Your task to perform on an android device: Search for 8K TVs on Best Buy. Image 0: 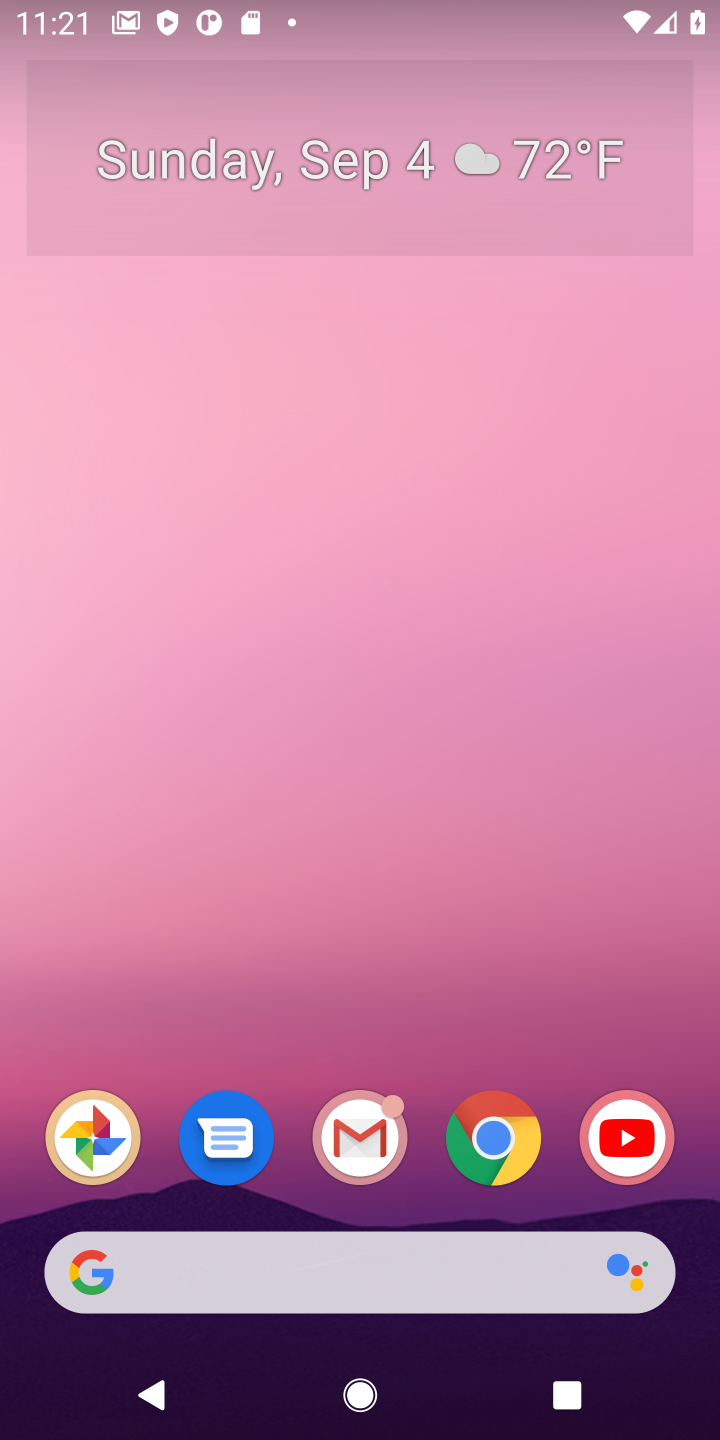
Step 0: click (486, 1147)
Your task to perform on an android device: Search for 8K TVs on Best Buy. Image 1: 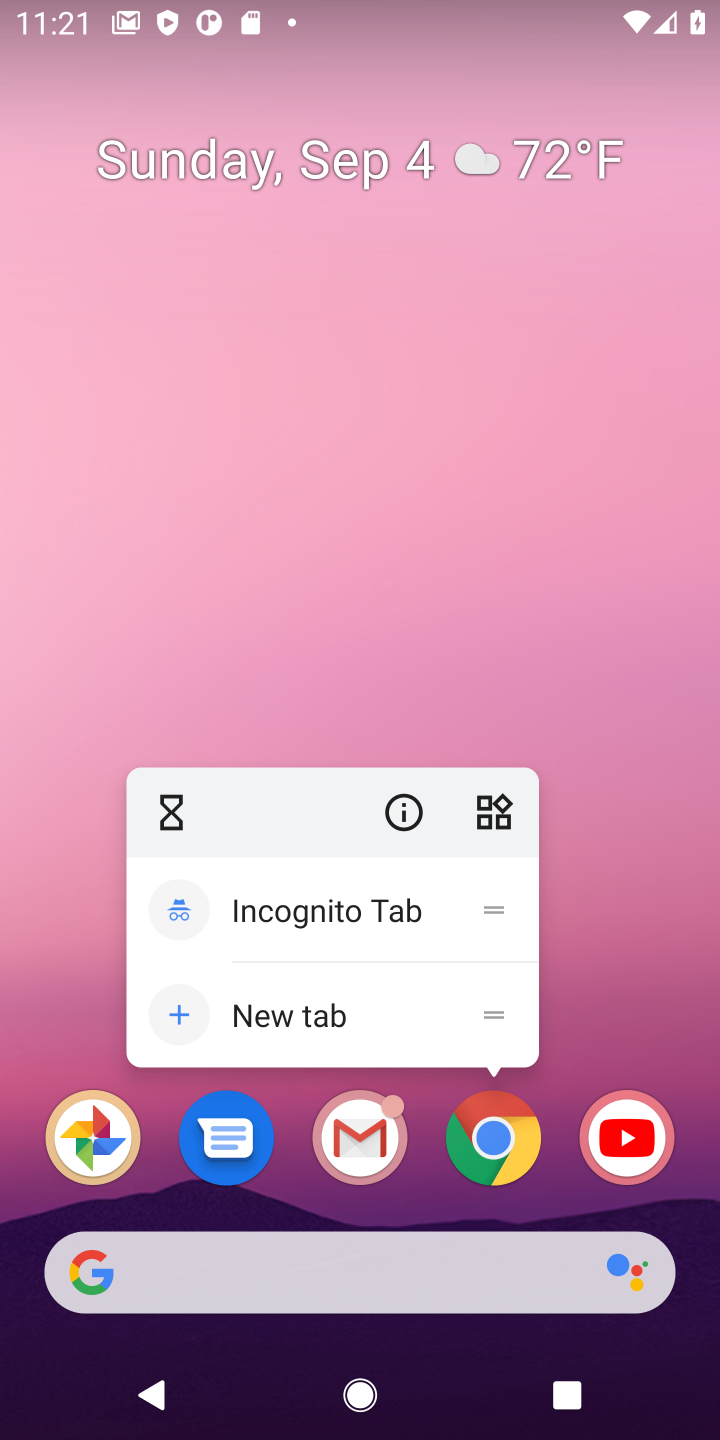
Step 1: click (497, 1132)
Your task to perform on an android device: Search for 8K TVs on Best Buy. Image 2: 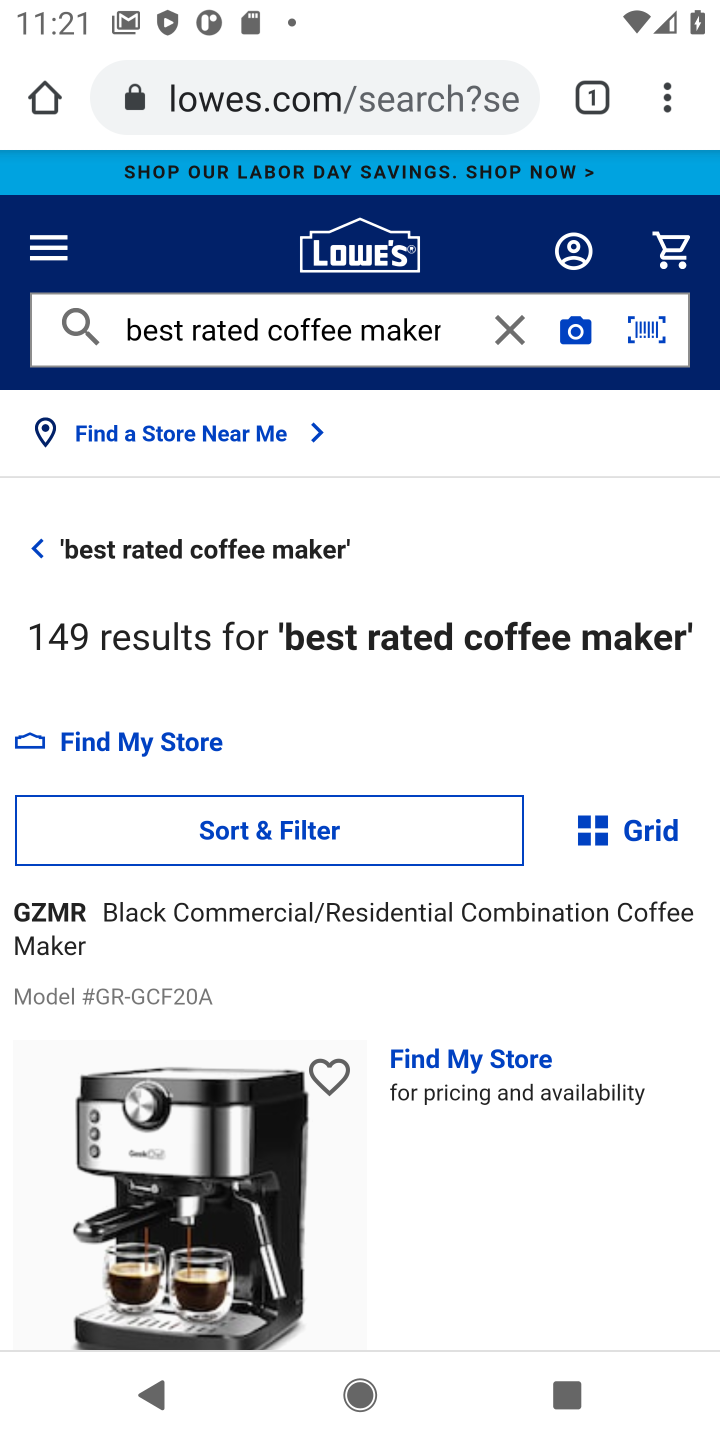
Step 2: click (493, 330)
Your task to perform on an android device: Search for 8K TVs on Best Buy. Image 3: 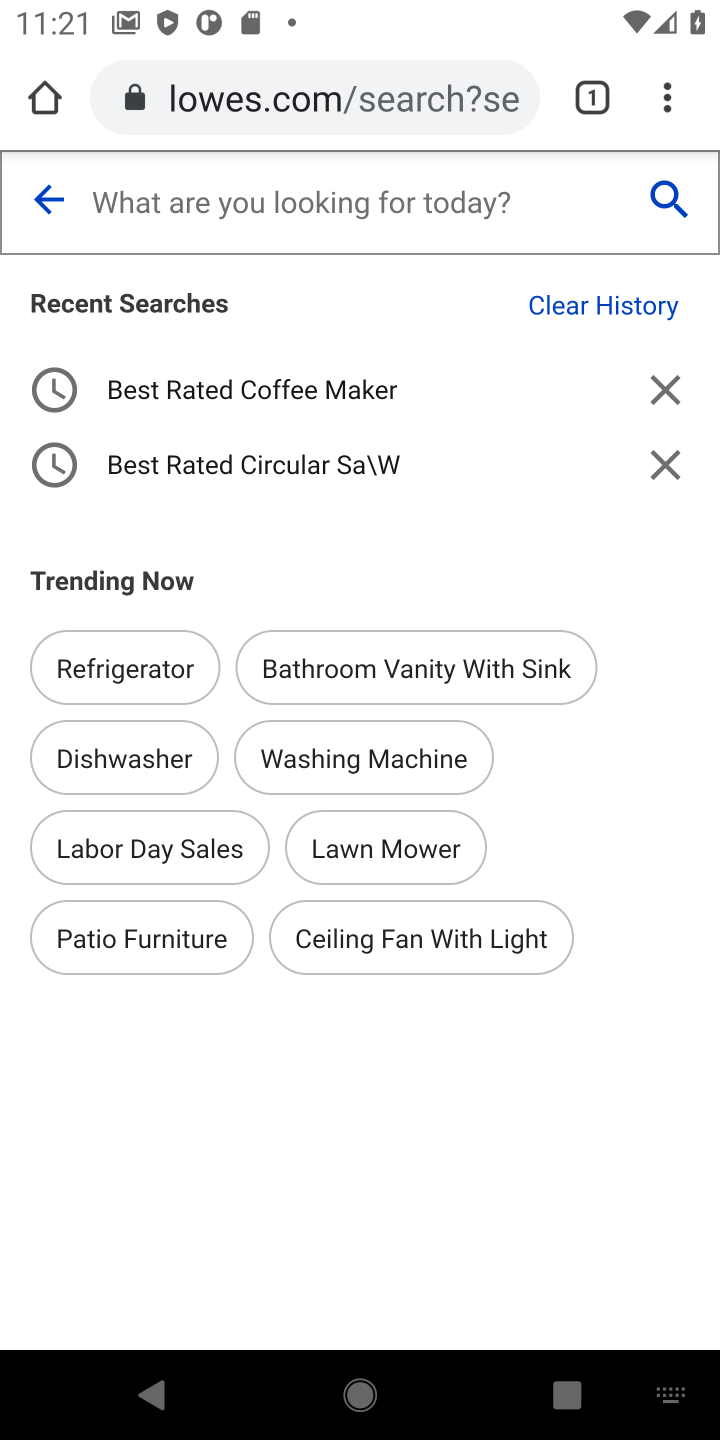
Step 3: click (361, 99)
Your task to perform on an android device: Search for 8K TVs on Best Buy. Image 4: 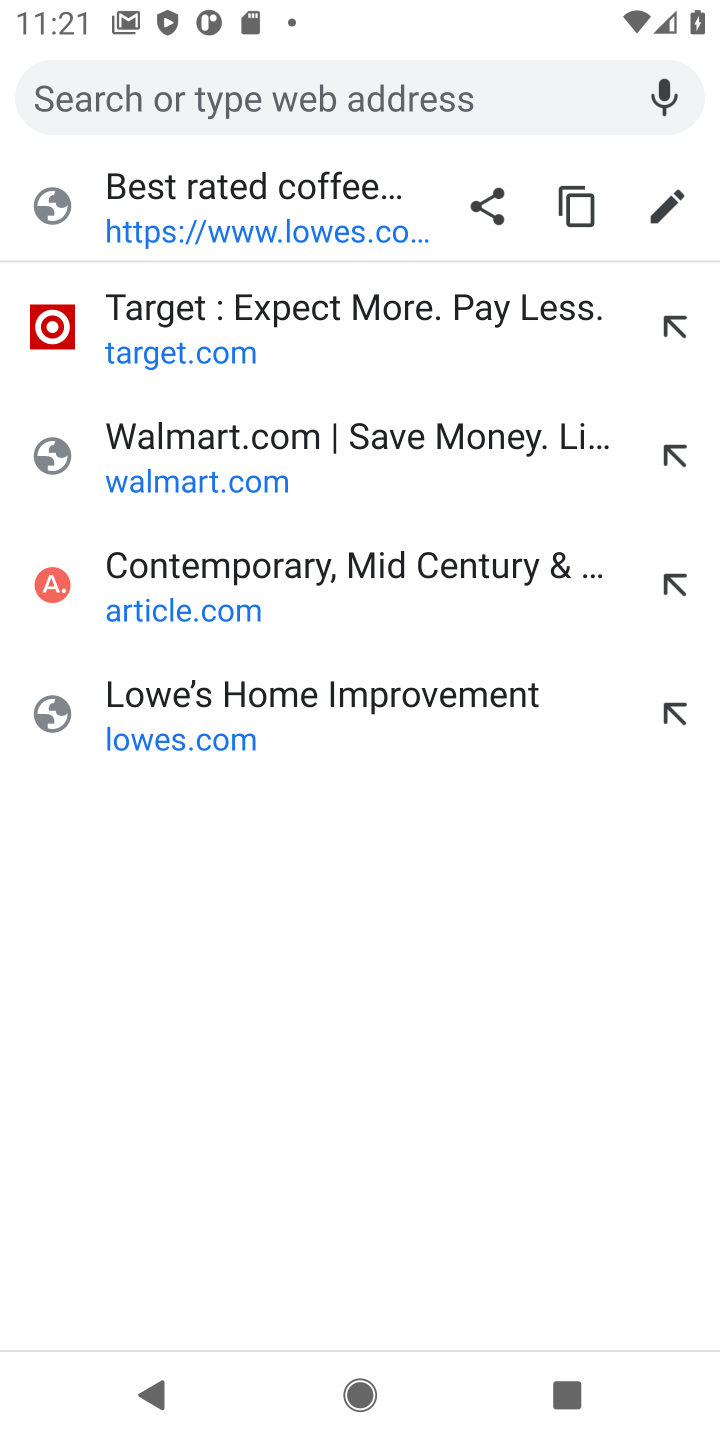
Step 4: type "best buy"
Your task to perform on an android device: Search for 8K TVs on Best Buy. Image 5: 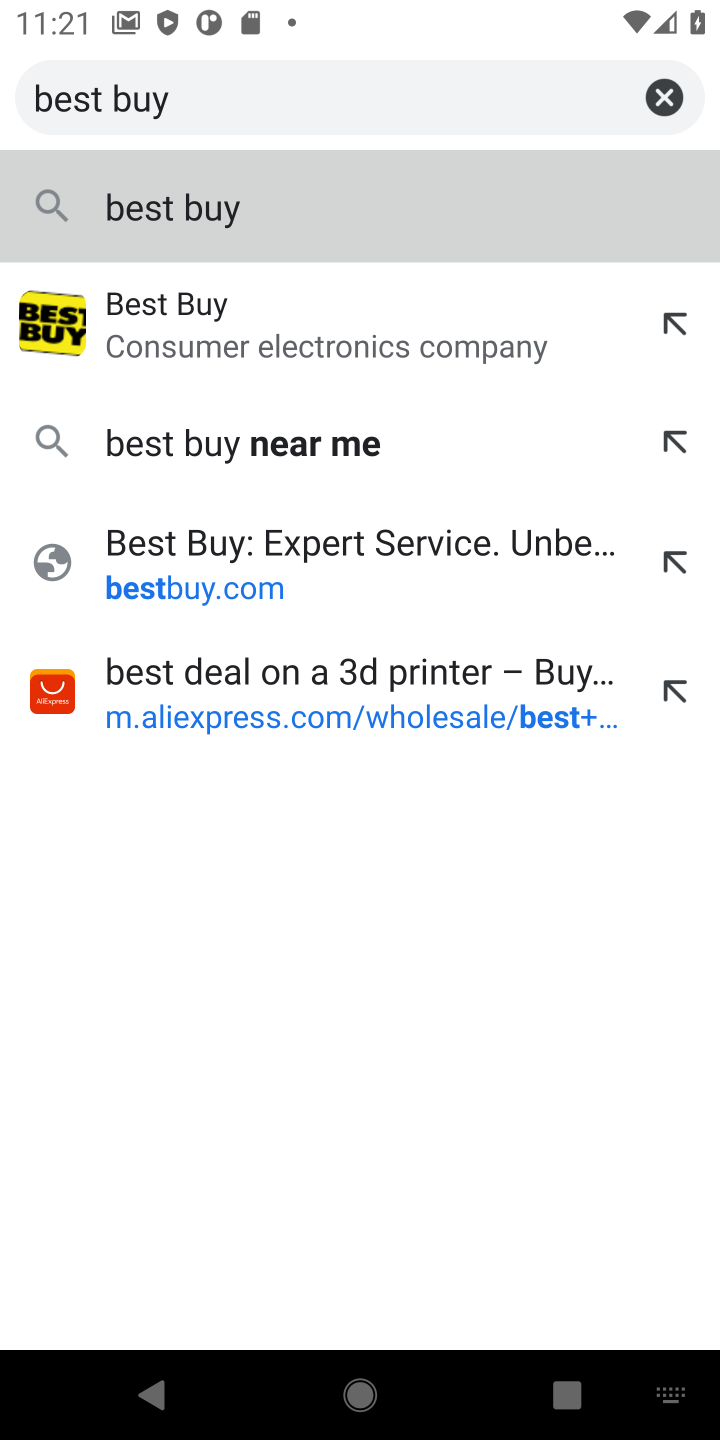
Step 5: click (381, 568)
Your task to perform on an android device: Search for 8K TVs on Best Buy. Image 6: 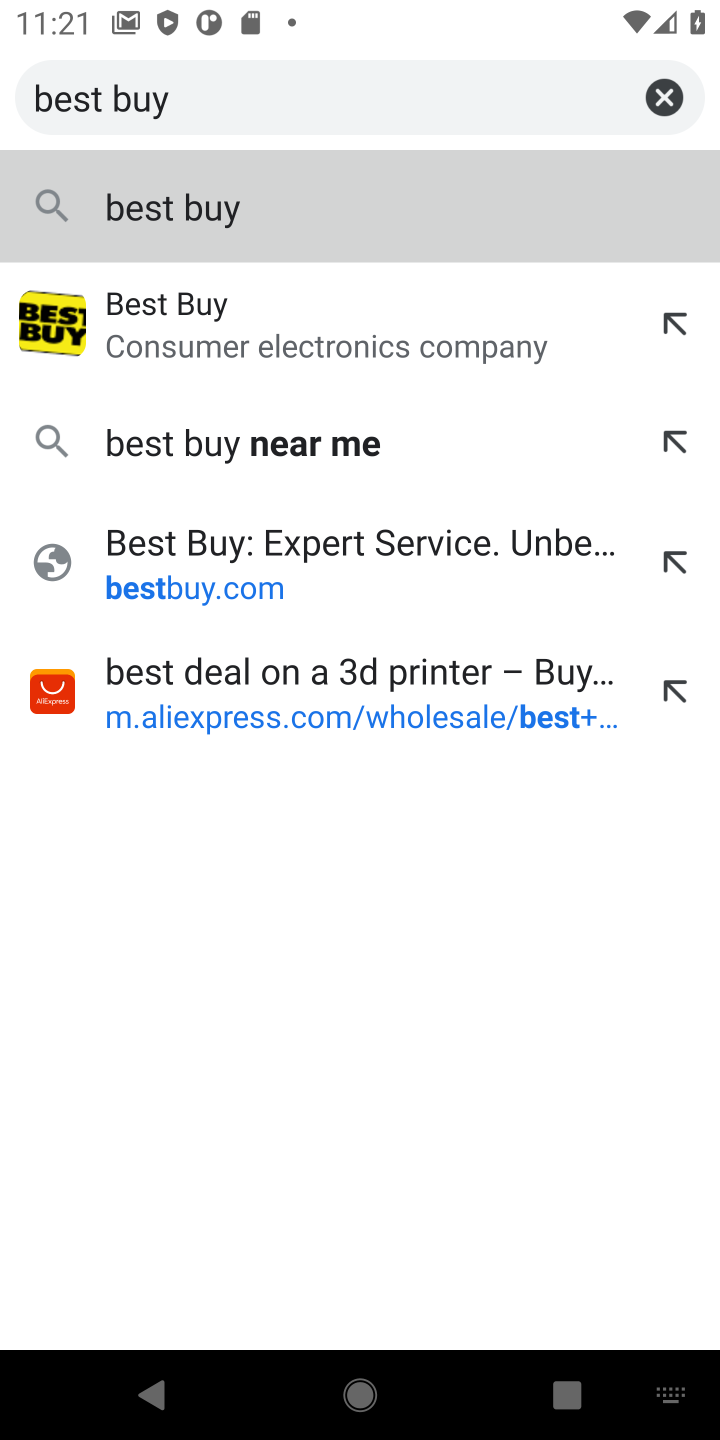
Step 6: click (315, 571)
Your task to perform on an android device: Search for 8K TVs on Best Buy. Image 7: 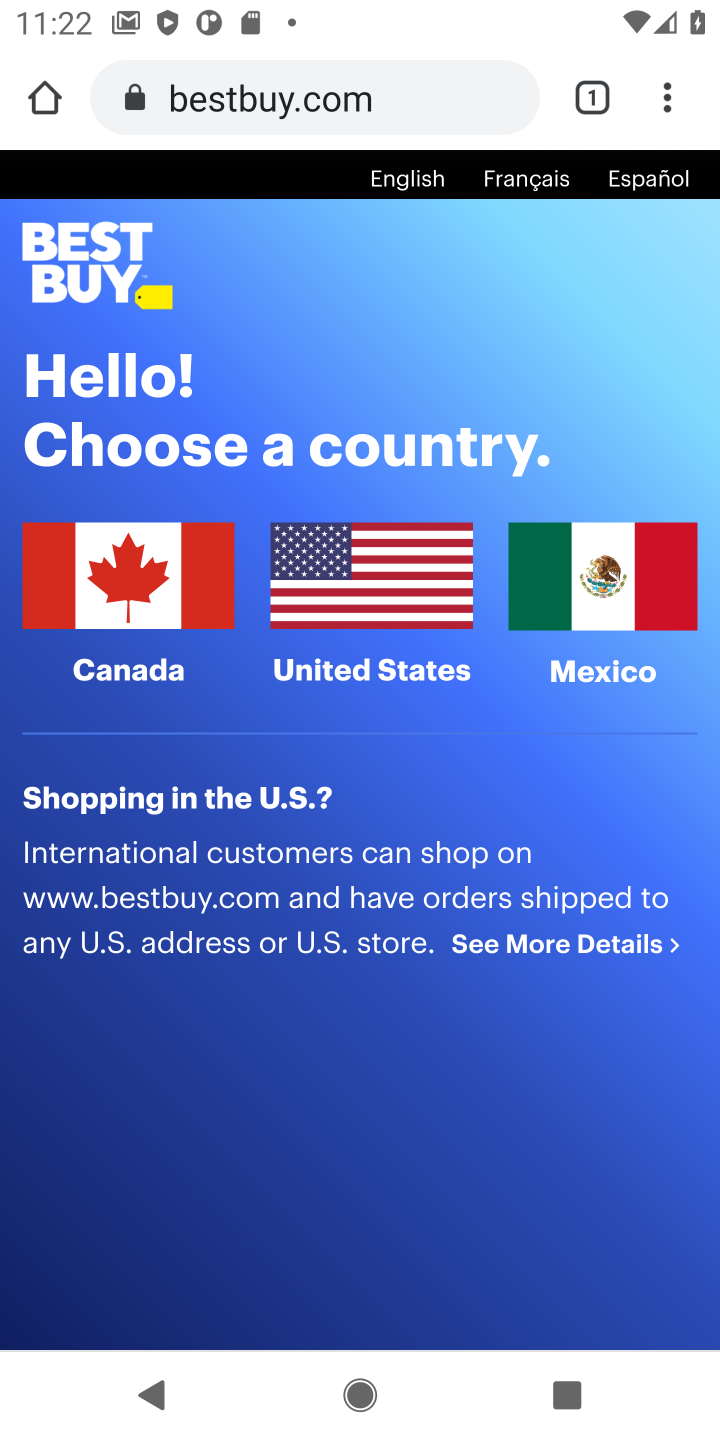
Step 7: click (464, 513)
Your task to perform on an android device: Search for 8K TVs on Best Buy. Image 8: 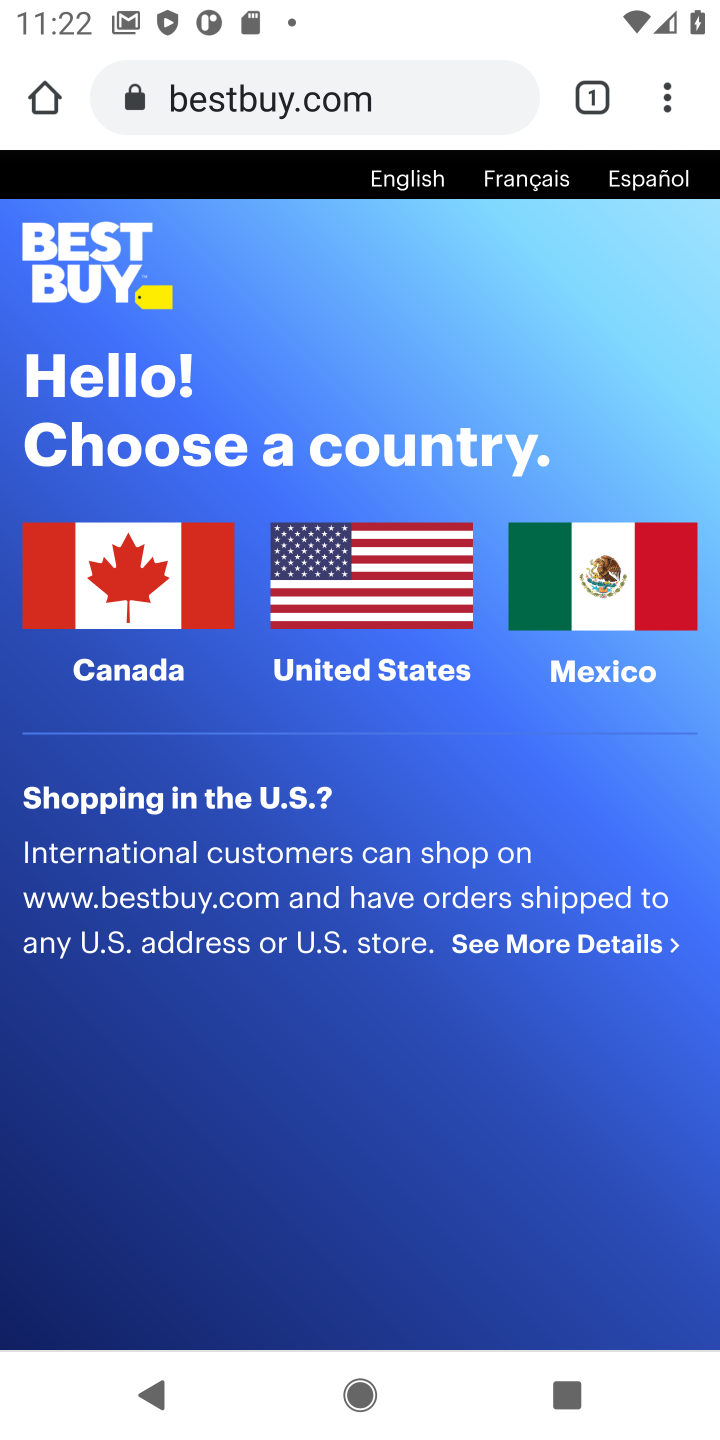
Step 8: click (432, 570)
Your task to perform on an android device: Search for 8K TVs on Best Buy. Image 9: 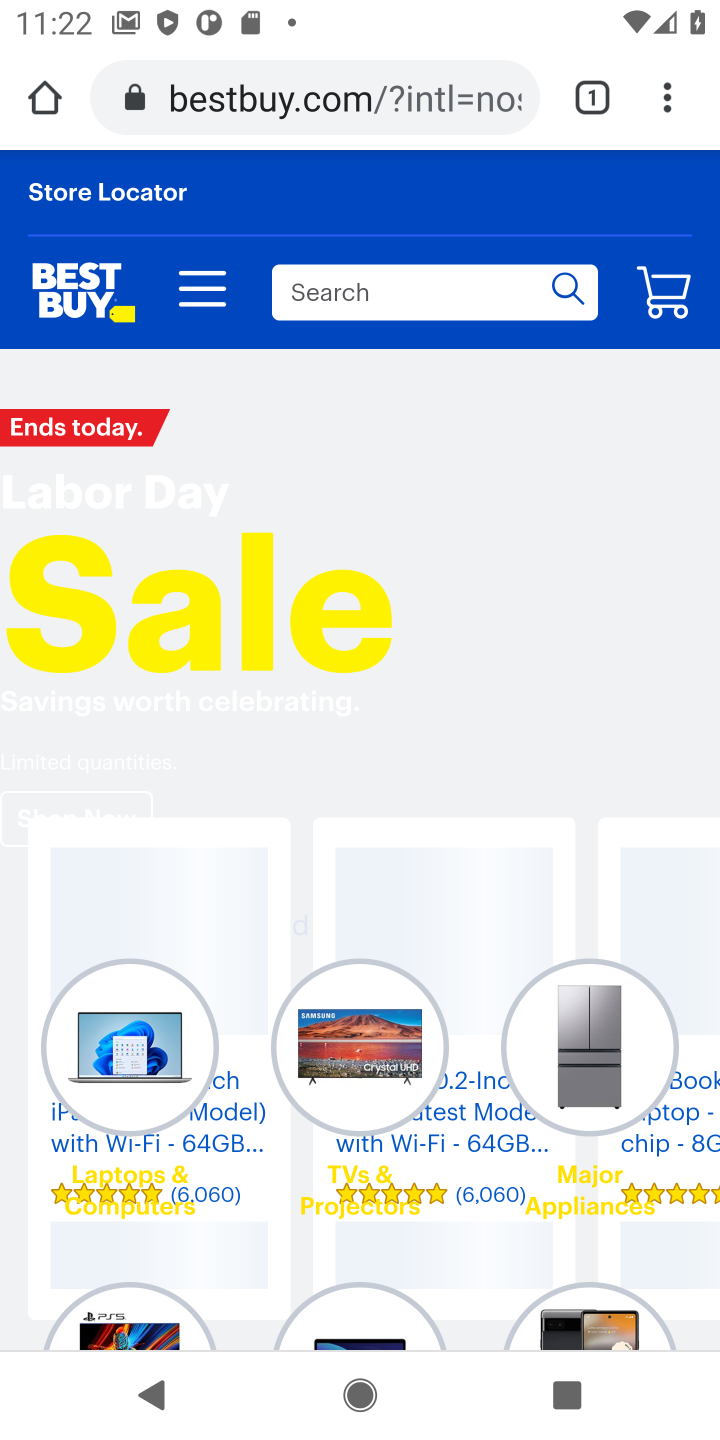
Step 9: click (422, 288)
Your task to perform on an android device: Search for 8K TVs on Best Buy. Image 10: 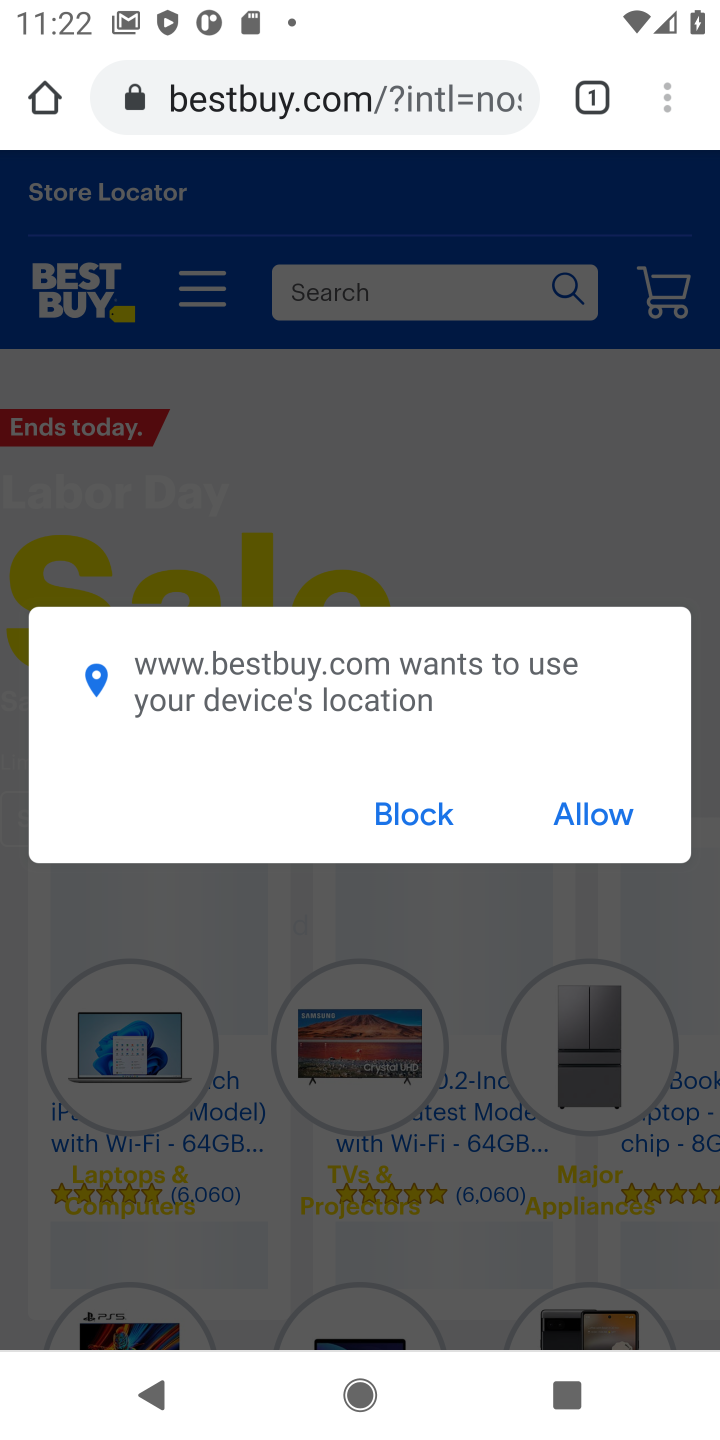
Step 10: click (578, 825)
Your task to perform on an android device: Search for 8K TVs on Best Buy. Image 11: 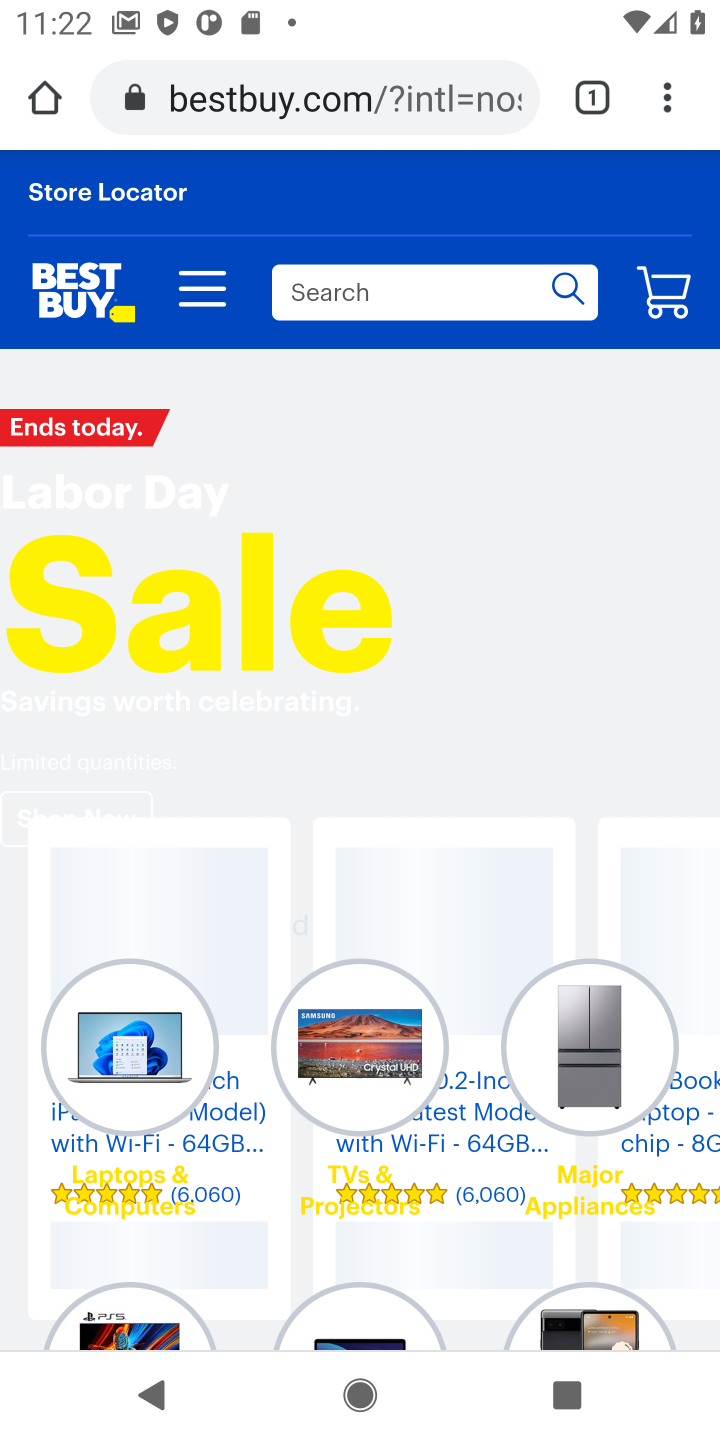
Step 11: click (424, 342)
Your task to perform on an android device: Search for 8K TVs on Best Buy. Image 12: 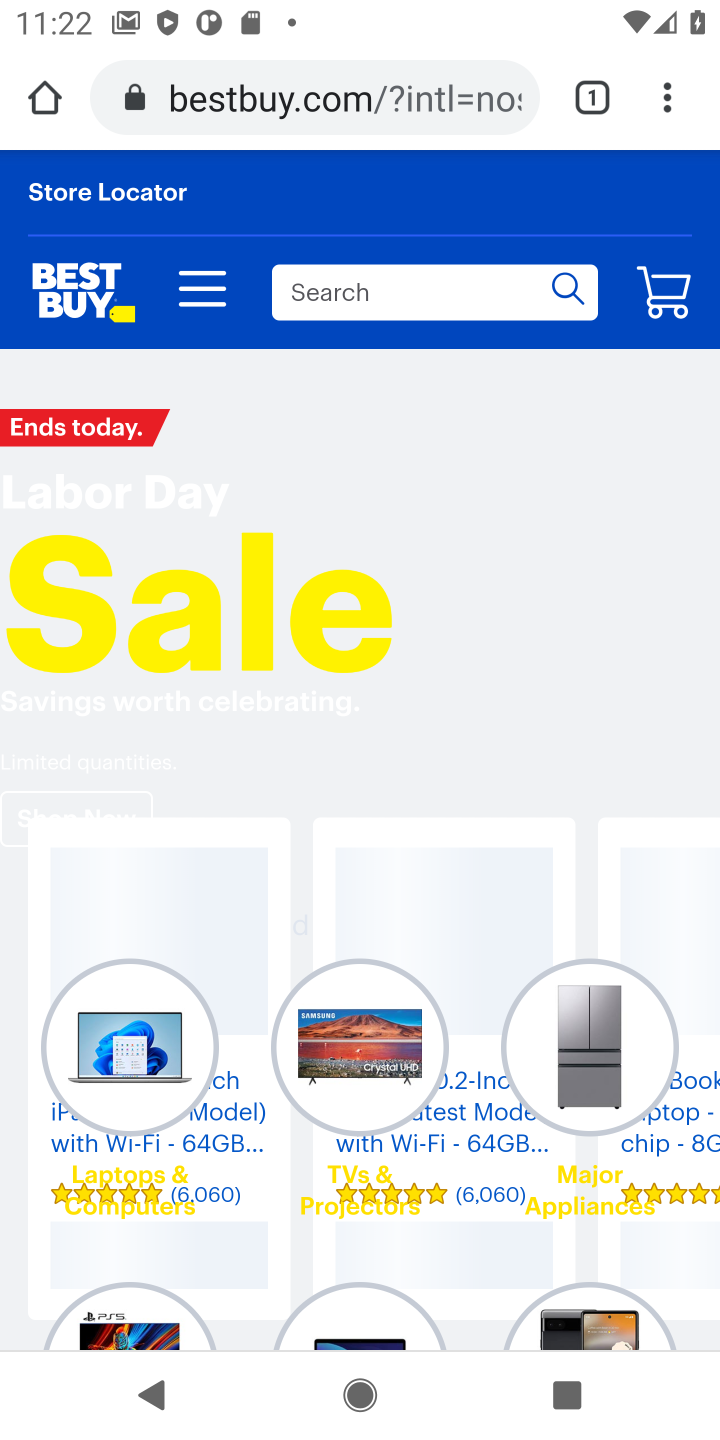
Step 12: click (443, 301)
Your task to perform on an android device: Search for 8K TVs on Best Buy. Image 13: 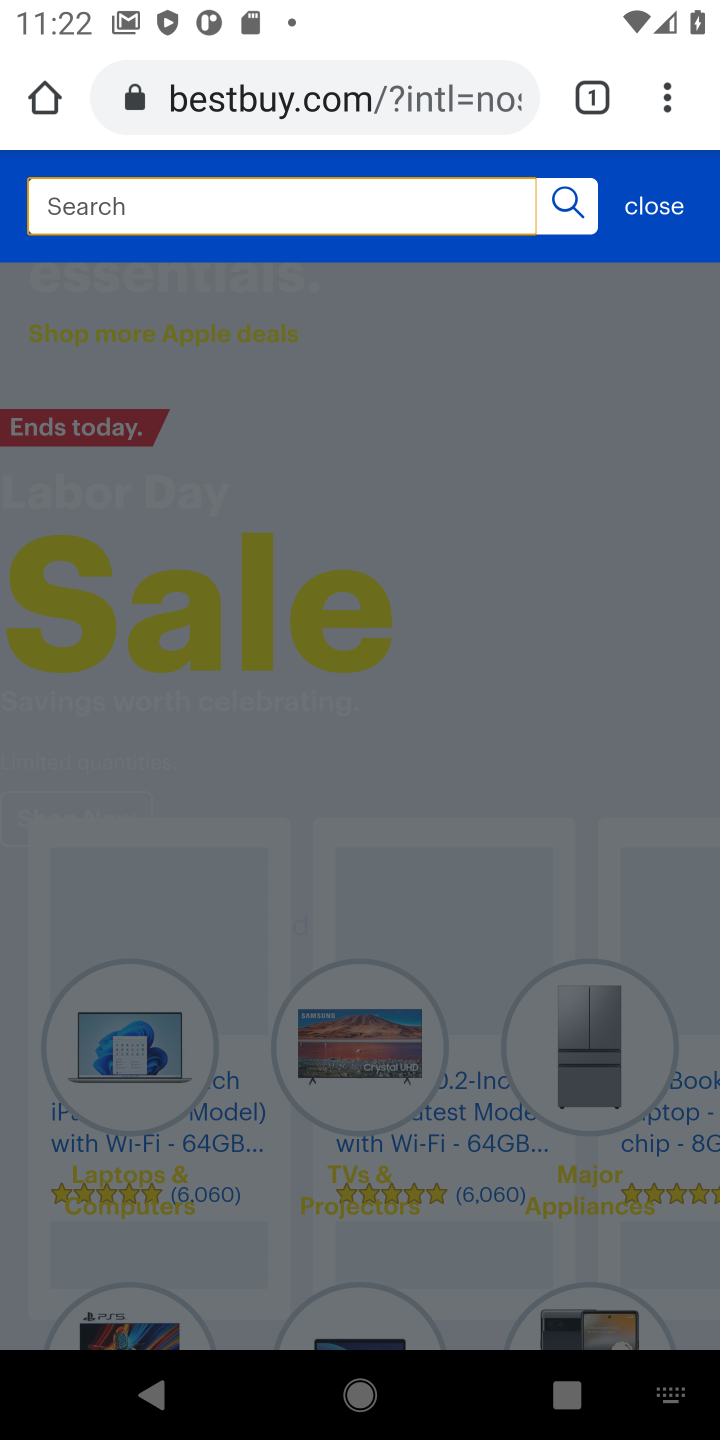
Step 13: type "8k tvs"
Your task to perform on an android device: Search for 8K TVs on Best Buy. Image 14: 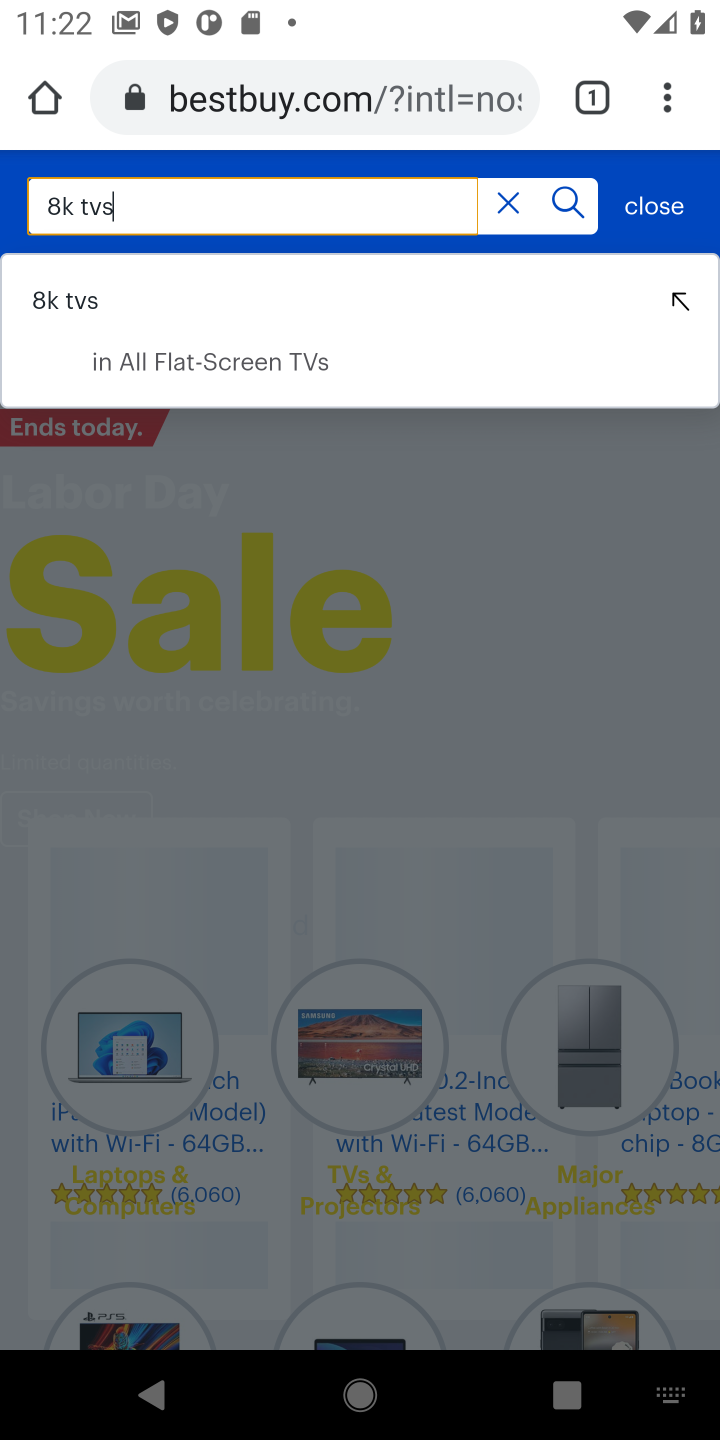
Step 14: click (171, 292)
Your task to perform on an android device: Search for 8K TVs on Best Buy. Image 15: 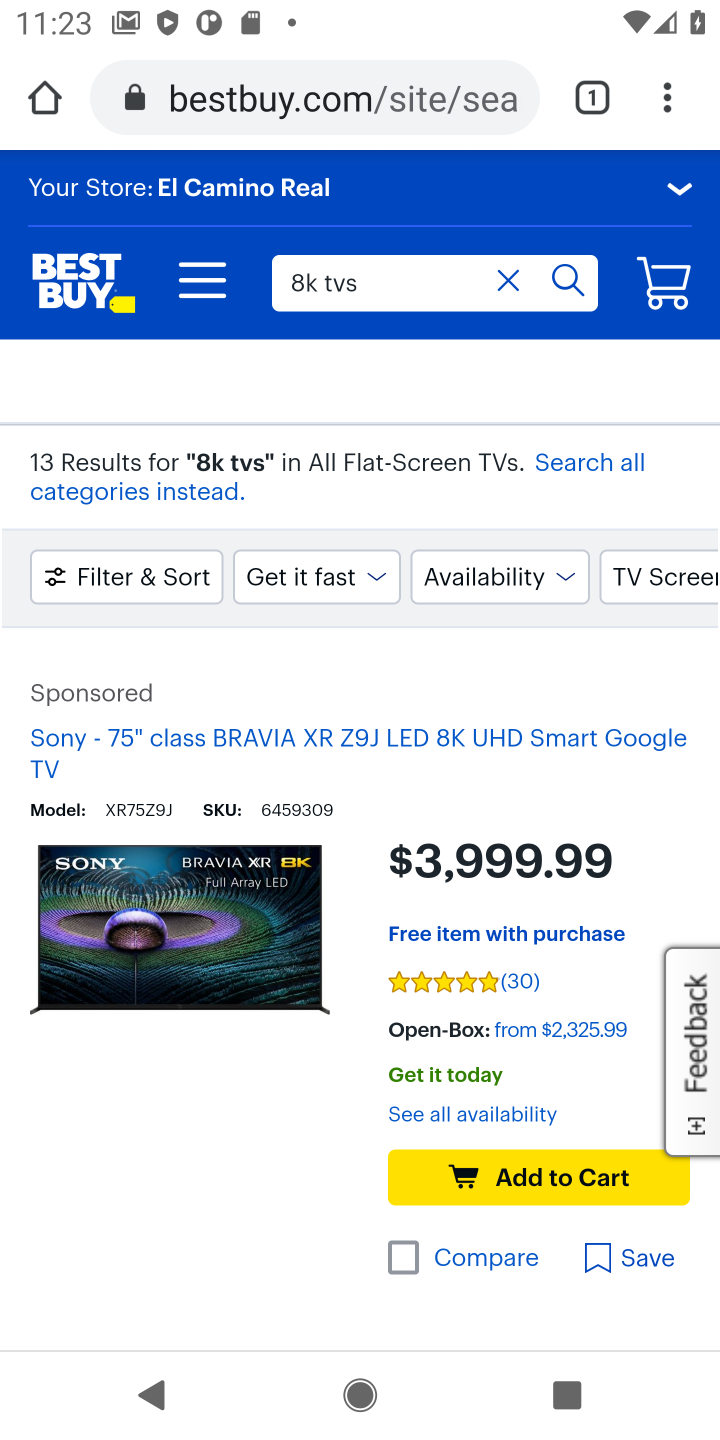
Step 15: task complete